Your task to perform on an android device: change text size in settings app Image 0: 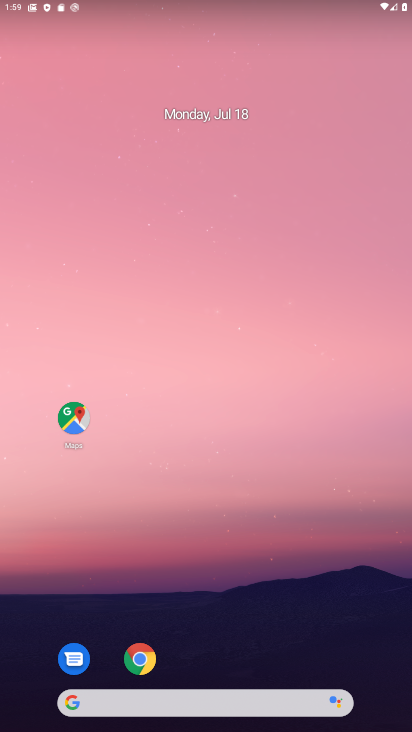
Step 0: drag from (232, 707) to (245, 85)
Your task to perform on an android device: change text size in settings app Image 1: 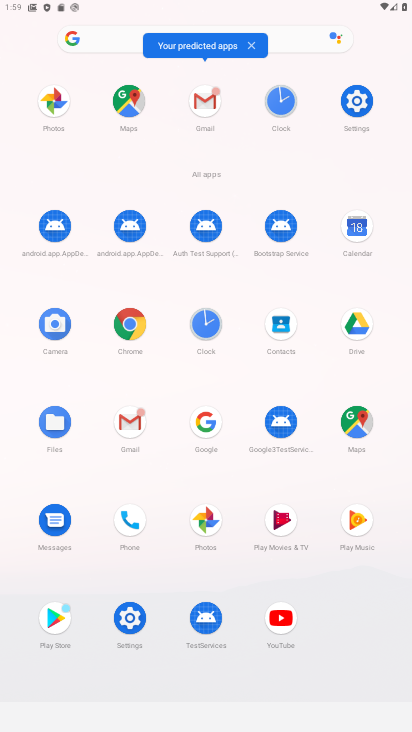
Step 1: click (356, 105)
Your task to perform on an android device: change text size in settings app Image 2: 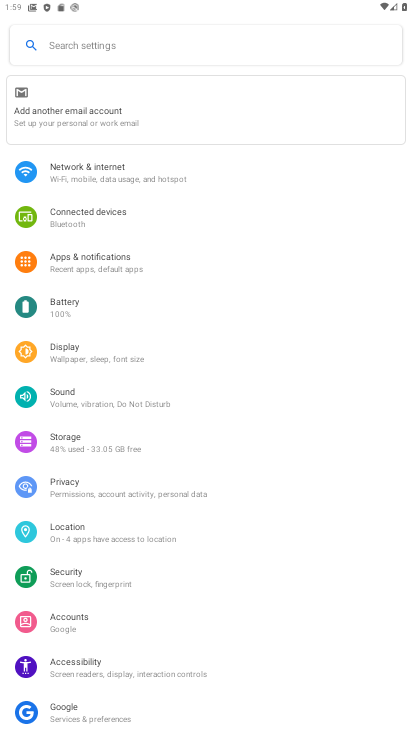
Step 2: click (70, 359)
Your task to perform on an android device: change text size in settings app Image 3: 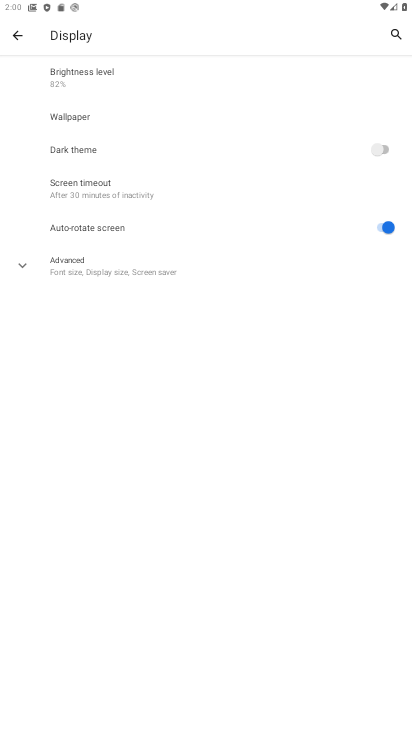
Step 3: click (106, 271)
Your task to perform on an android device: change text size in settings app Image 4: 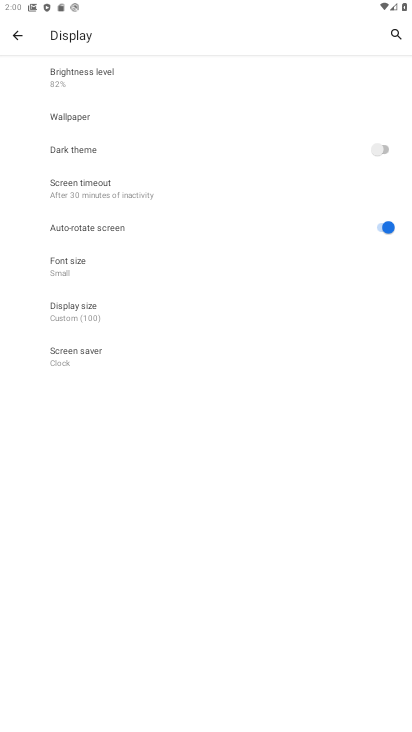
Step 4: click (88, 272)
Your task to perform on an android device: change text size in settings app Image 5: 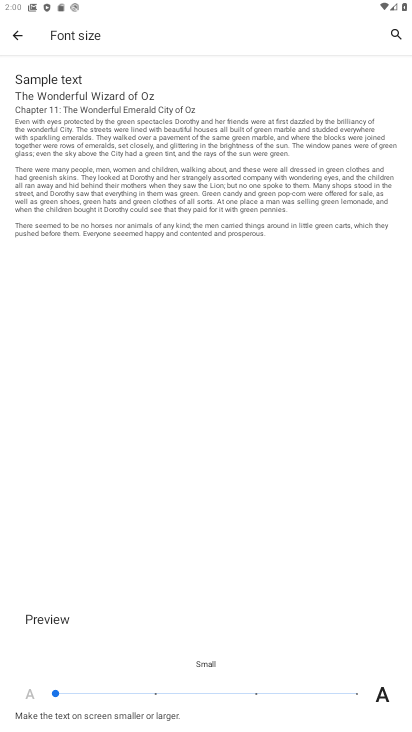
Step 5: click (150, 692)
Your task to perform on an android device: change text size in settings app Image 6: 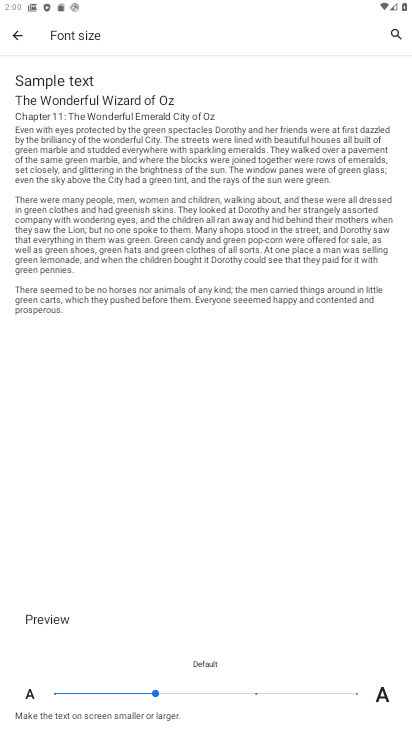
Step 6: click (353, 693)
Your task to perform on an android device: change text size in settings app Image 7: 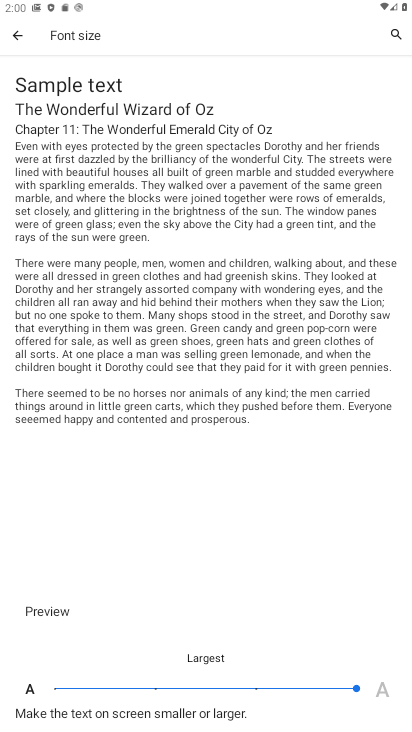
Step 7: task complete